Your task to perform on an android device: install app "Upside-Cash back on gas & food" Image 0: 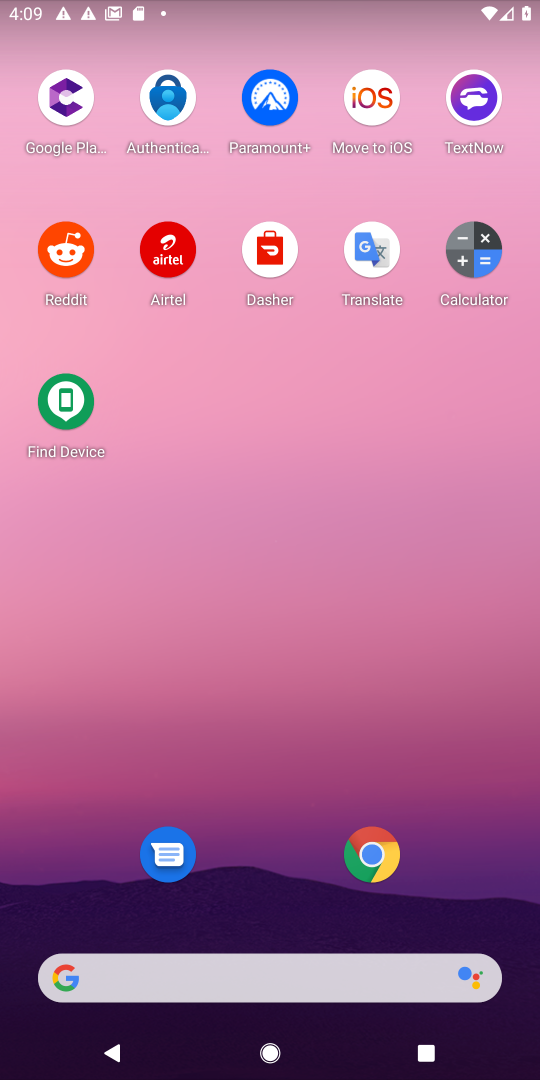
Step 0: drag from (262, 285) to (262, 28)
Your task to perform on an android device: install app "Upside-Cash back on gas & food" Image 1: 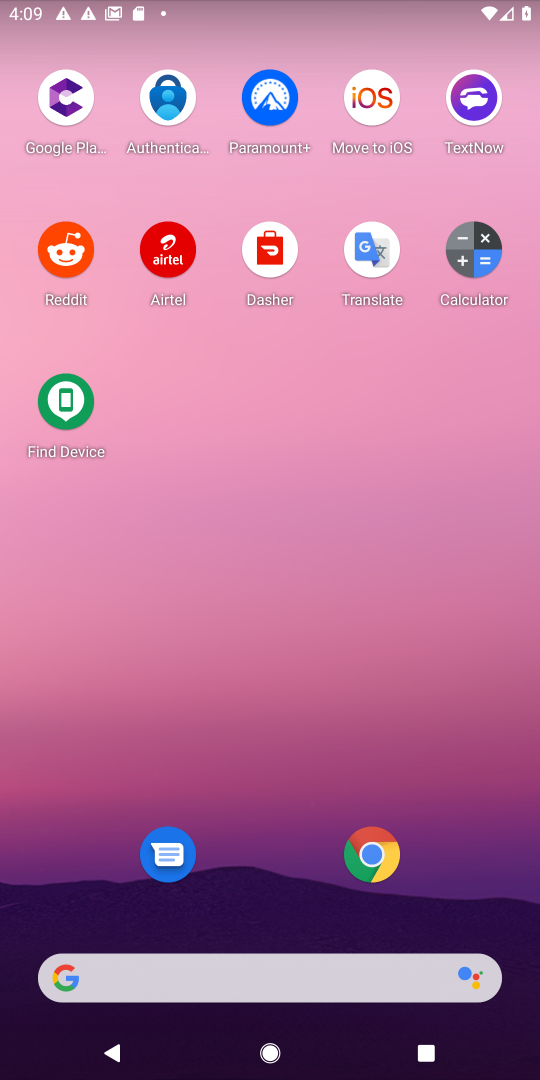
Step 1: drag from (268, 937) to (257, 138)
Your task to perform on an android device: install app "Upside-Cash back on gas & food" Image 2: 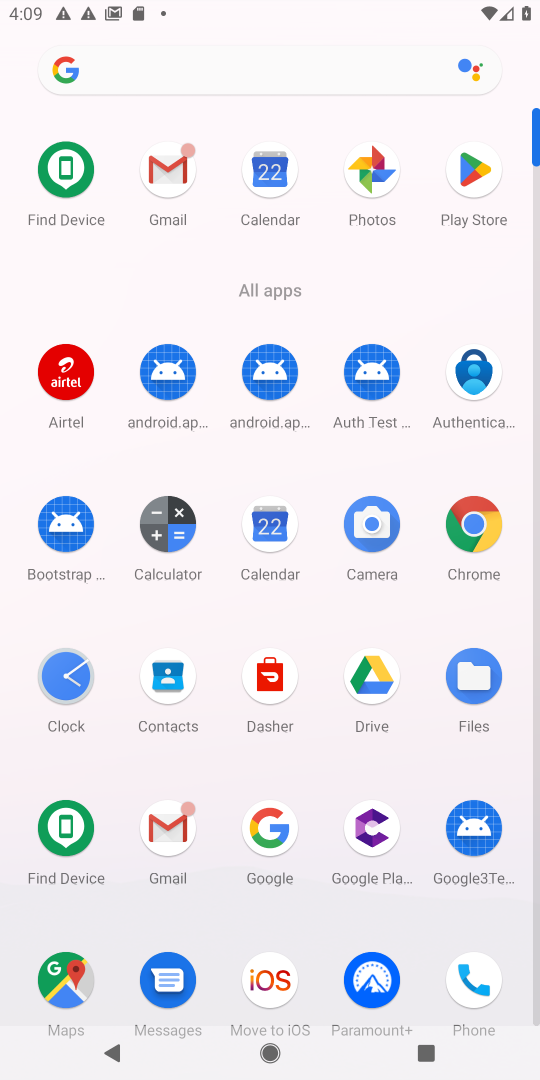
Step 2: click (471, 161)
Your task to perform on an android device: install app "Upside-Cash back on gas & food" Image 3: 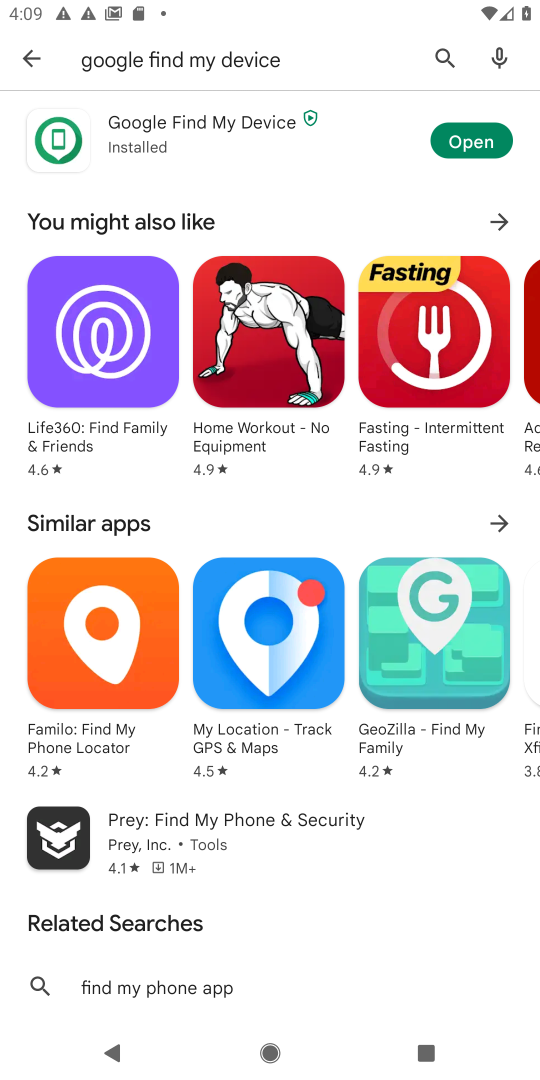
Step 3: click (439, 47)
Your task to perform on an android device: install app "Upside-Cash back on gas & food" Image 4: 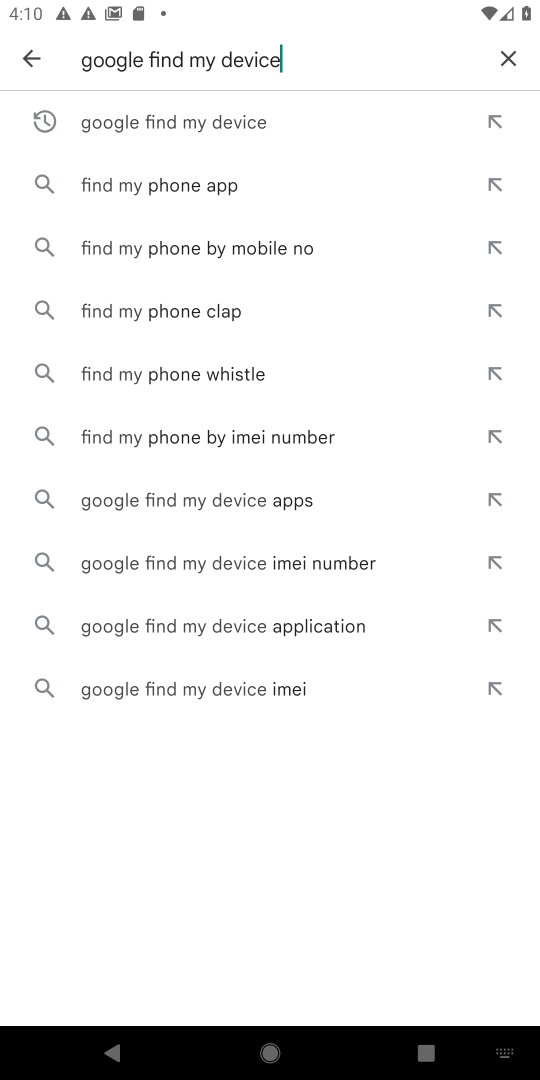
Step 4: click (215, 118)
Your task to perform on an android device: install app "Upside-Cash back on gas & food" Image 5: 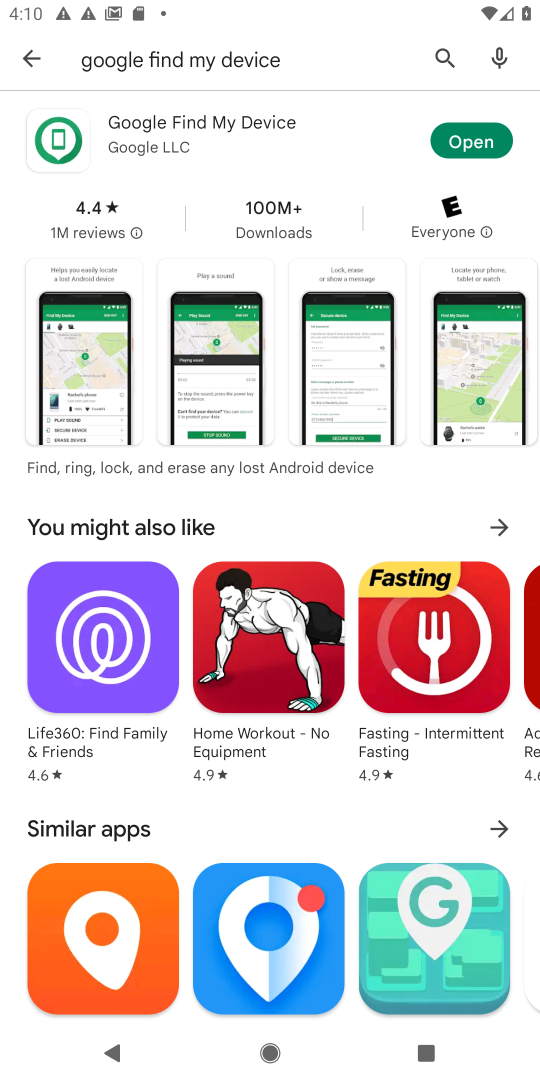
Step 5: click (440, 47)
Your task to perform on an android device: install app "Upside-Cash back on gas & food" Image 6: 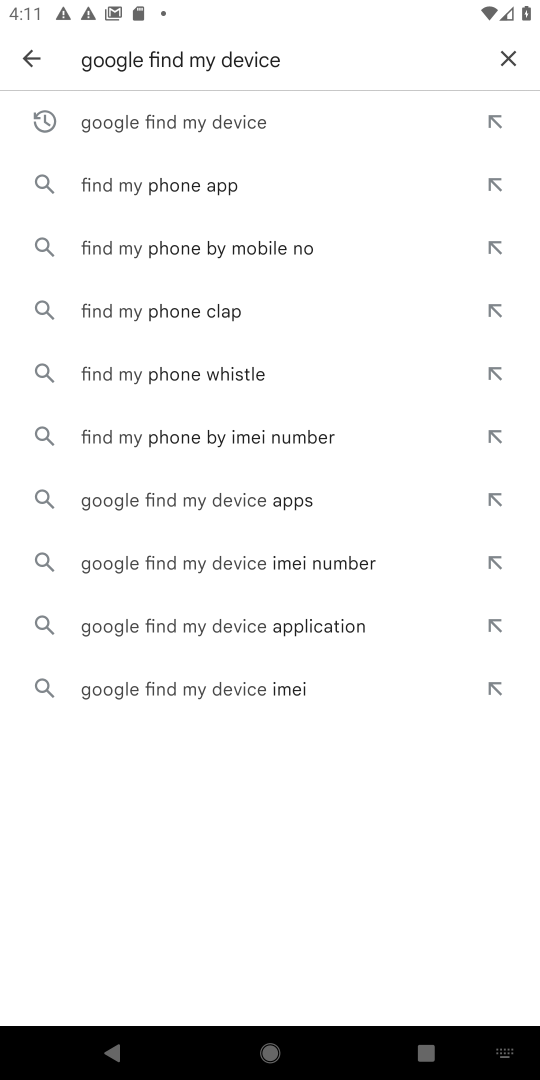
Step 6: click (506, 53)
Your task to perform on an android device: install app "Upside-Cash back on gas & food" Image 7: 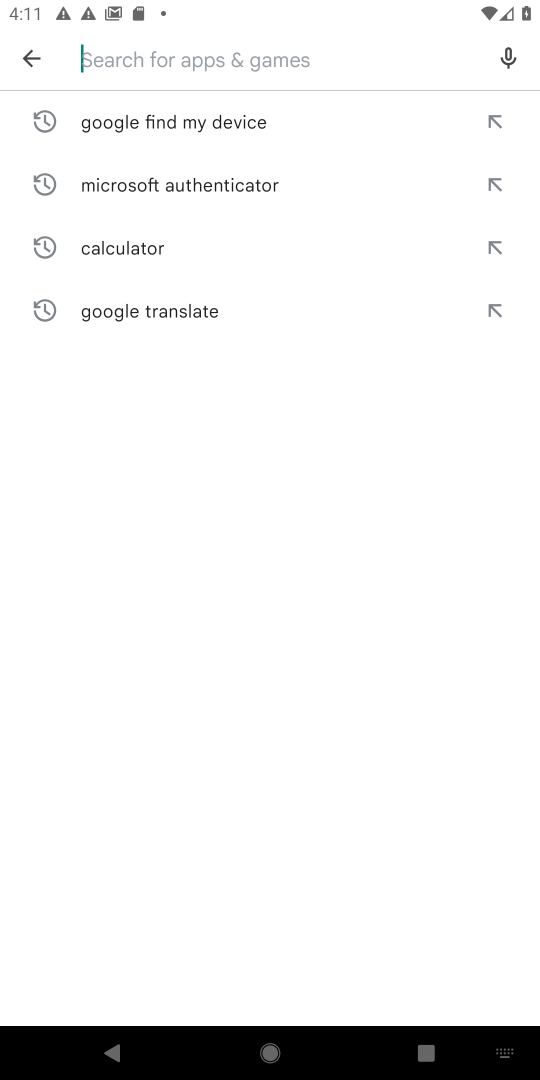
Step 7: type "Upside-Cash back on gas & food"
Your task to perform on an android device: install app "Upside-Cash back on gas & food" Image 8: 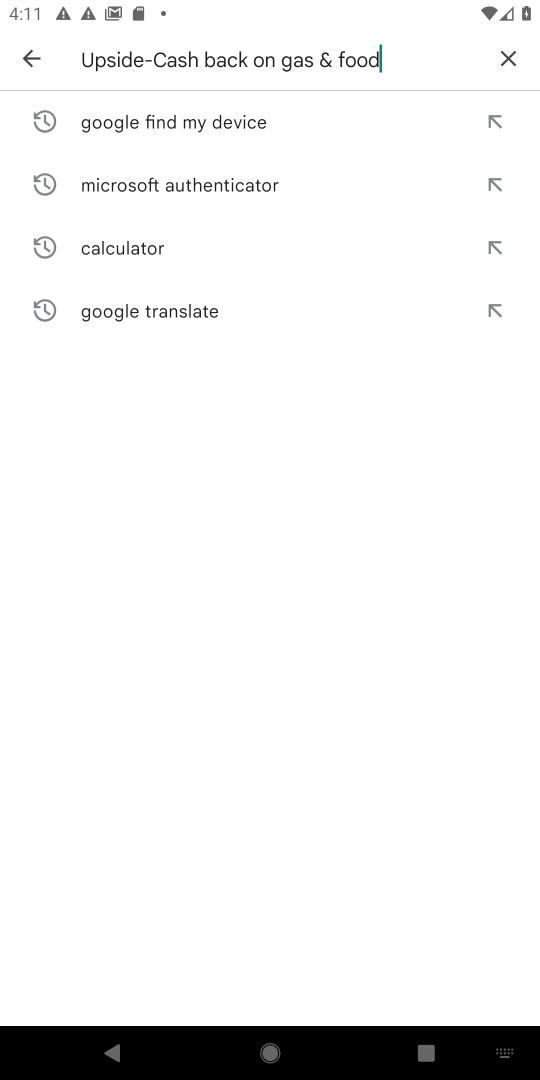
Step 8: type ""
Your task to perform on an android device: install app "Upside-Cash back on gas & food" Image 9: 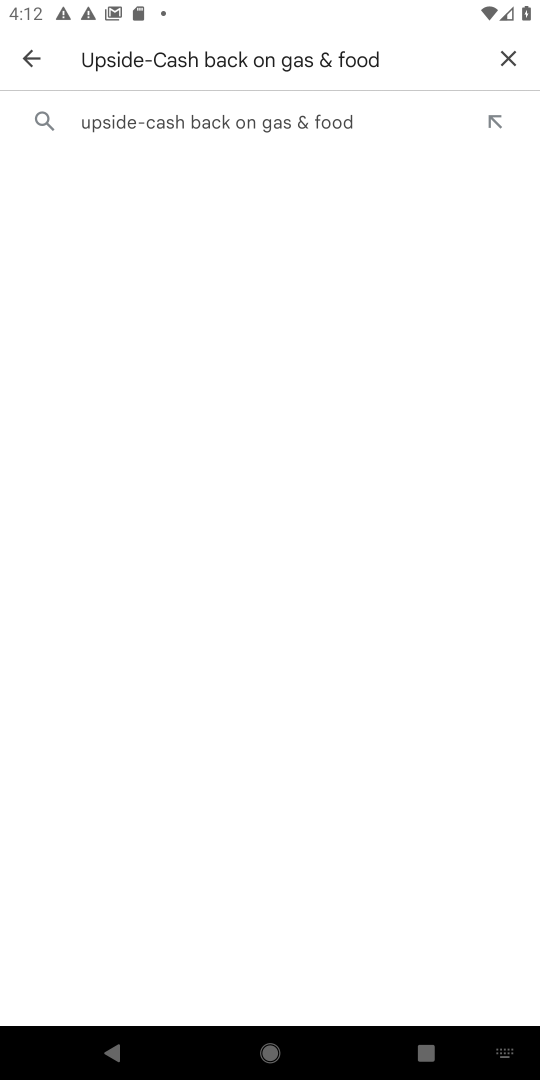
Step 9: click (228, 112)
Your task to perform on an android device: install app "Upside-Cash back on gas & food" Image 10: 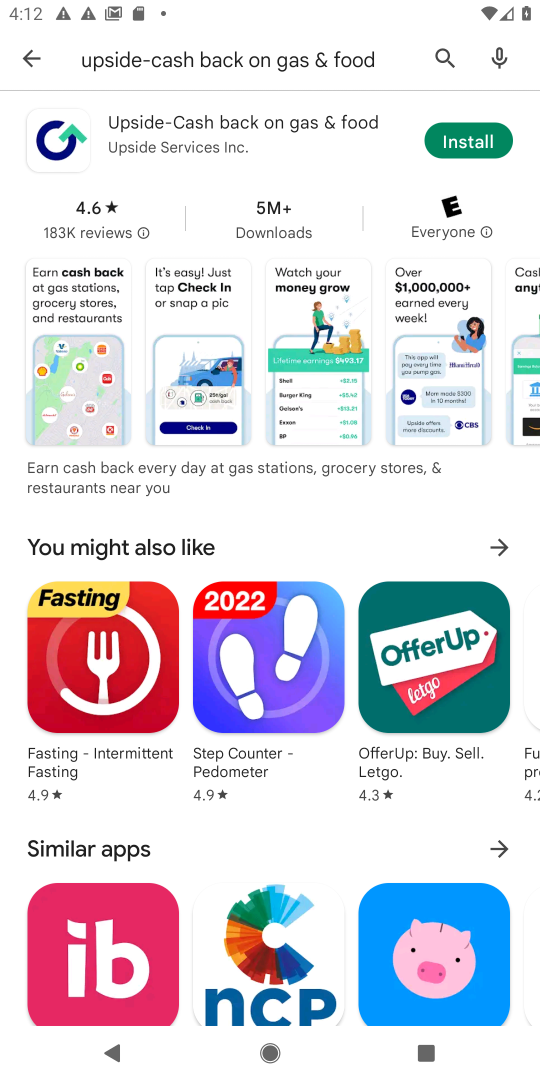
Step 10: click (472, 140)
Your task to perform on an android device: install app "Upside-Cash back on gas & food" Image 11: 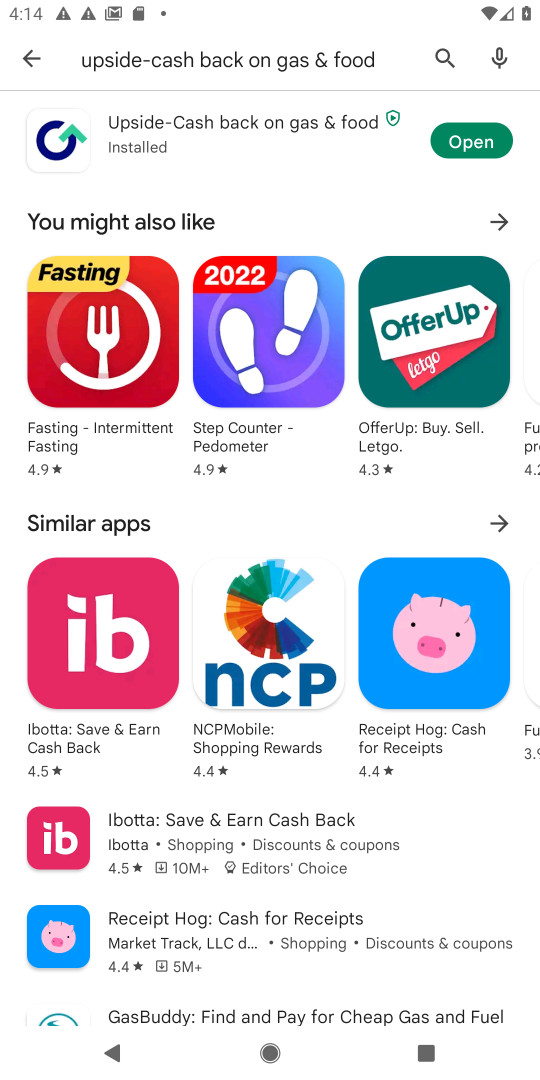
Step 11: task complete